Your task to perform on an android device: Open settings Image 0: 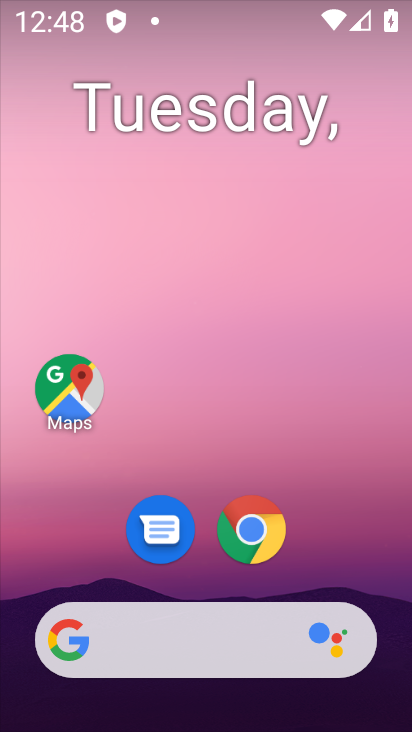
Step 0: drag from (155, 612) to (221, 40)
Your task to perform on an android device: Open settings Image 1: 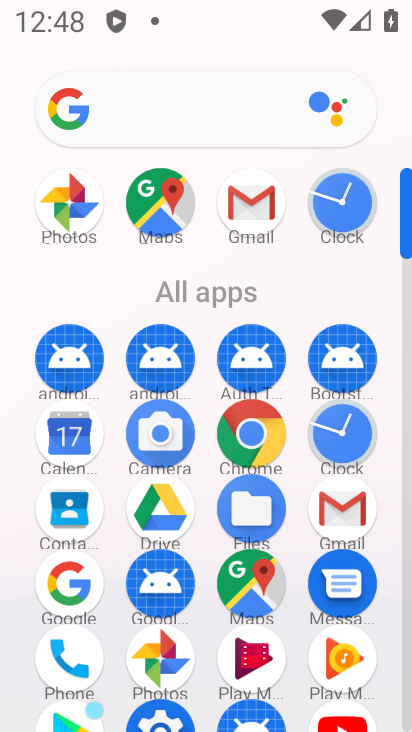
Step 1: drag from (194, 618) to (209, 145)
Your task to perform on an android device: Open settings Image 2: 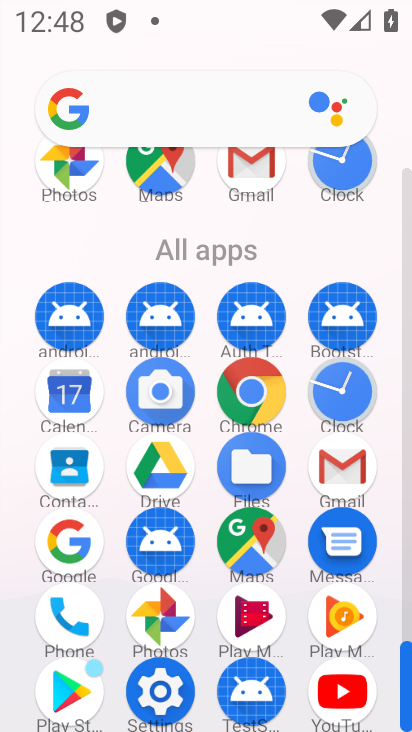
Step 2: click (174, 690)
Your task to perform on an android device: Open settings Image 3: 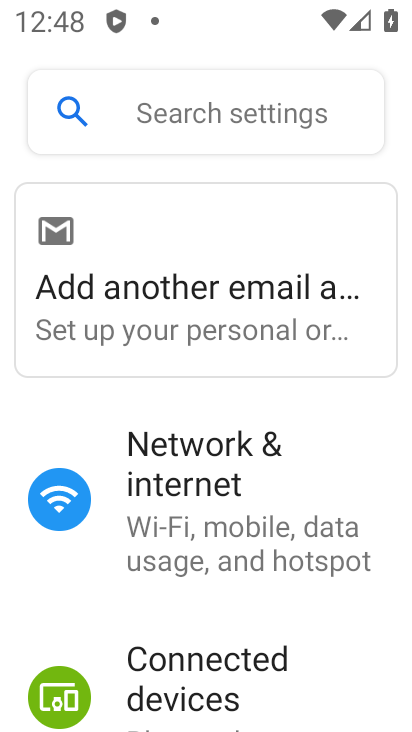
Step 3: task complete